Your task to perform on an android device: open the mobile data screen to see how much data has been used Image 0: 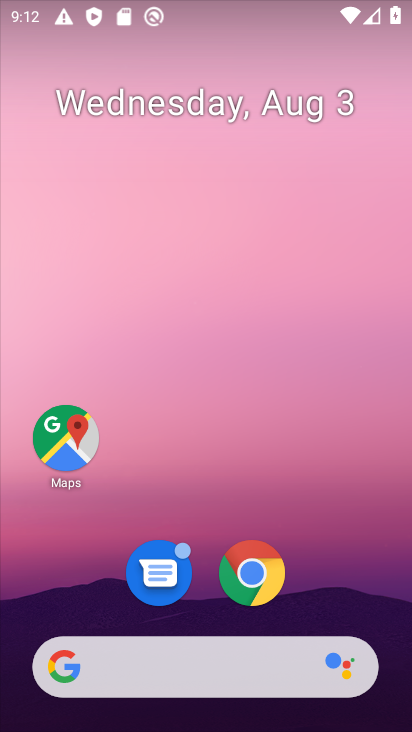
Step 0: drag from (206, 642) to (196, 101)
Your task to perform on an android device: open the mobile data screen to see how much data has been used Image 1: 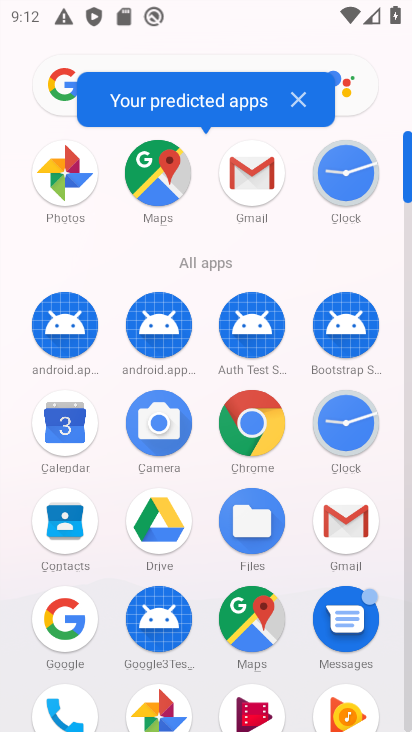
Step 1: drag from (218, 697) to (210, 185)
Your task to perform on an android device: open the mobile data screen to see how much data has been used Image 2: 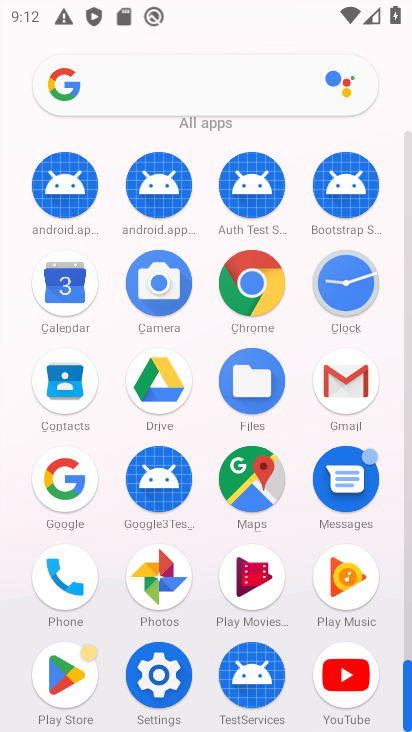
Step 2: click (156, 657)
Your task to perform on an android device: open the mobile data screen to see how much data has been used Image 3: 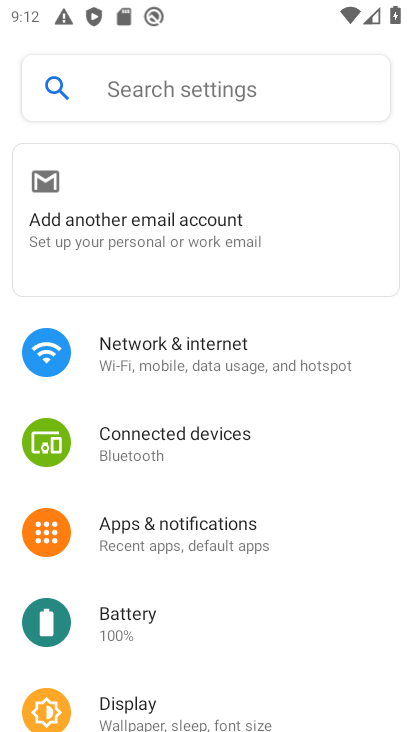
Step 3: click (179, 372)
Your task to perform on an android device: open the mobile data screen to see how much data has been used Image 4: 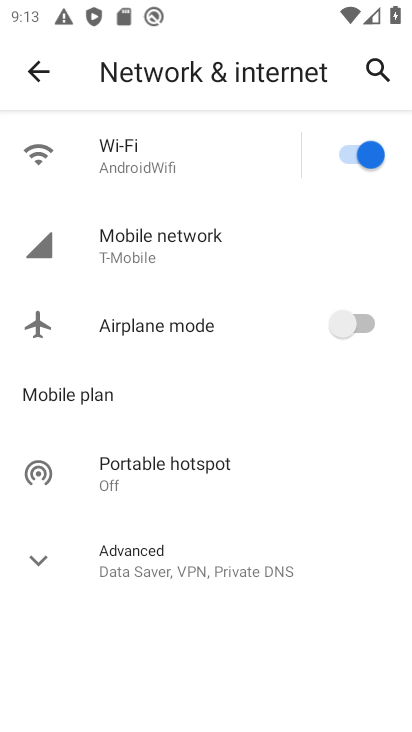
Step 4: click (204, 269)
Your task to perform on an android device: open the mobile data screen to see how much data has been used Image 5: 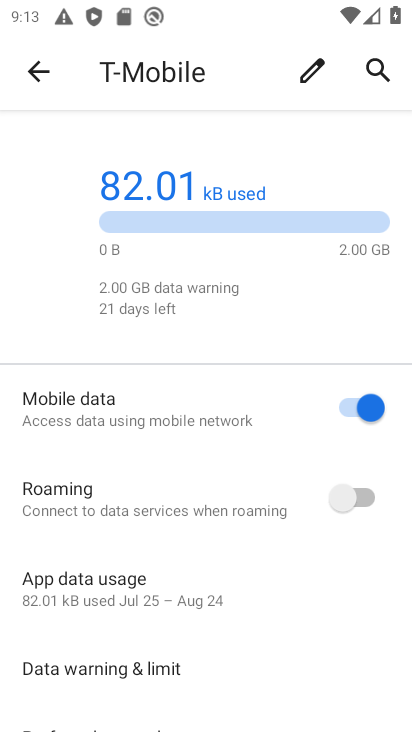
Step 5: task complete